Your task to perform on an android device: Is it going to rain today? Image 0: 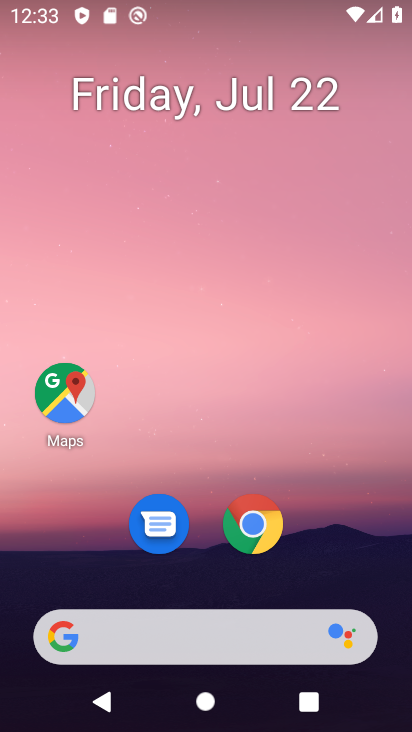
Step 0: press home button
Your task to perform on an android device: Is it going to rain today? Image 1: 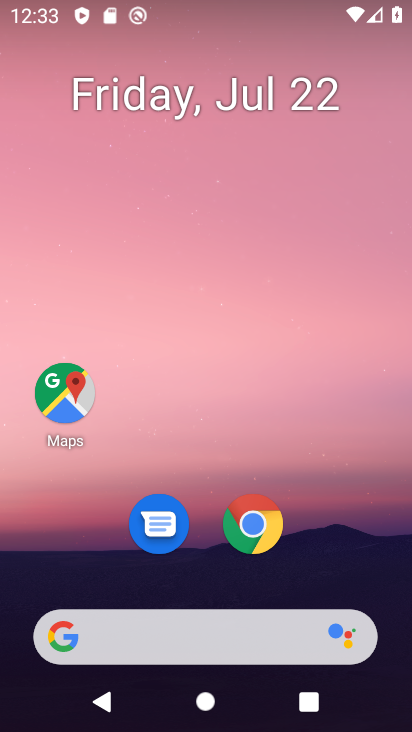
Step 1: click (132, 634)
Your task to perform on an android device: Is it going to rain today? Image 2: 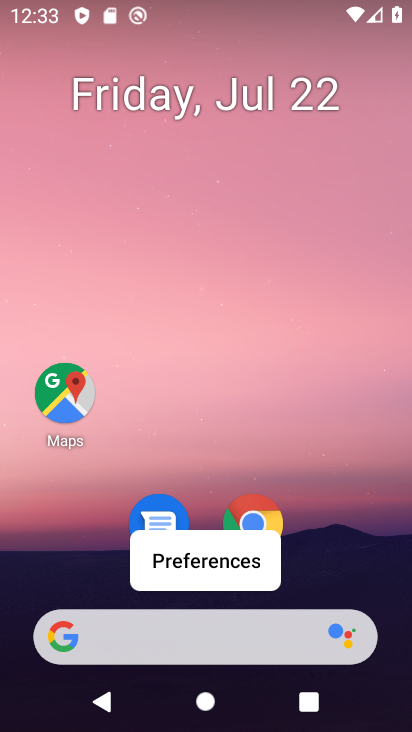
Step 2: click (147, 643)
Your task to perform on an android device: Is it going to rain today? Image 3: 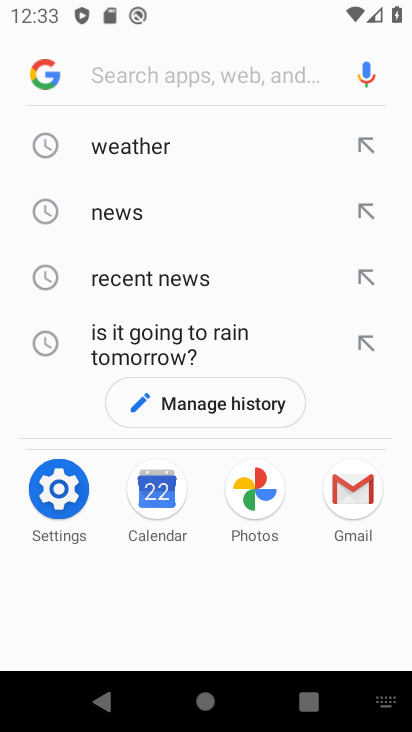
Step 3: click (158, 151)
Your task to perform on an android device: Is it going to rain today? Image 4: 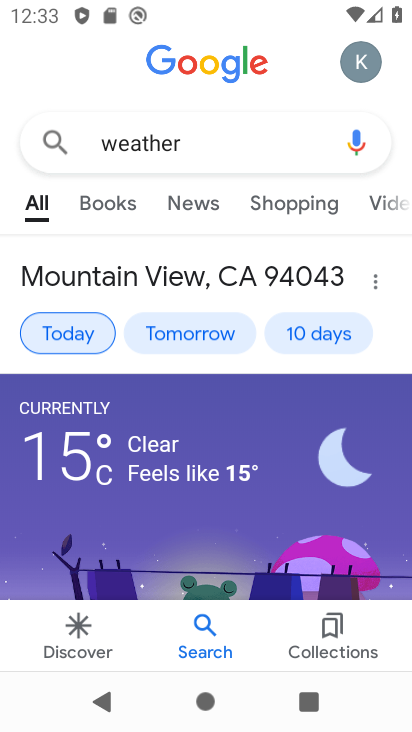
Step 4: task complete